Your task to perform on an android device: refresh tabs in the chrome app Image 0: 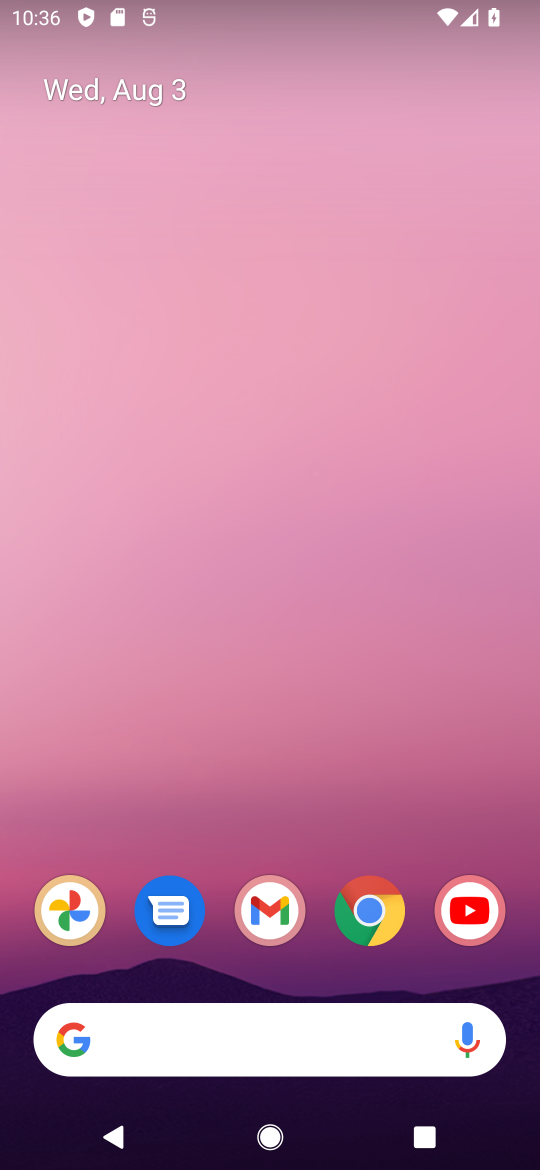
Step 0: press home button
Your task to perform on an android device: refresh tabs in the chrome app Image 1: 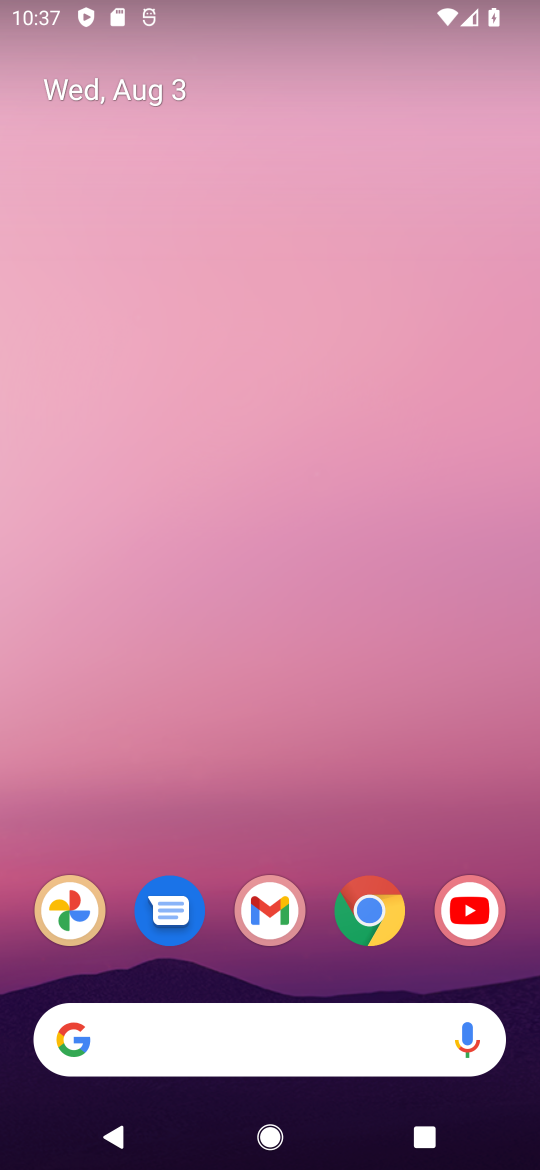
Step 1: click (366, 904)
Your task to perform on an android device: refresh tabs in the chrome app Image 2: 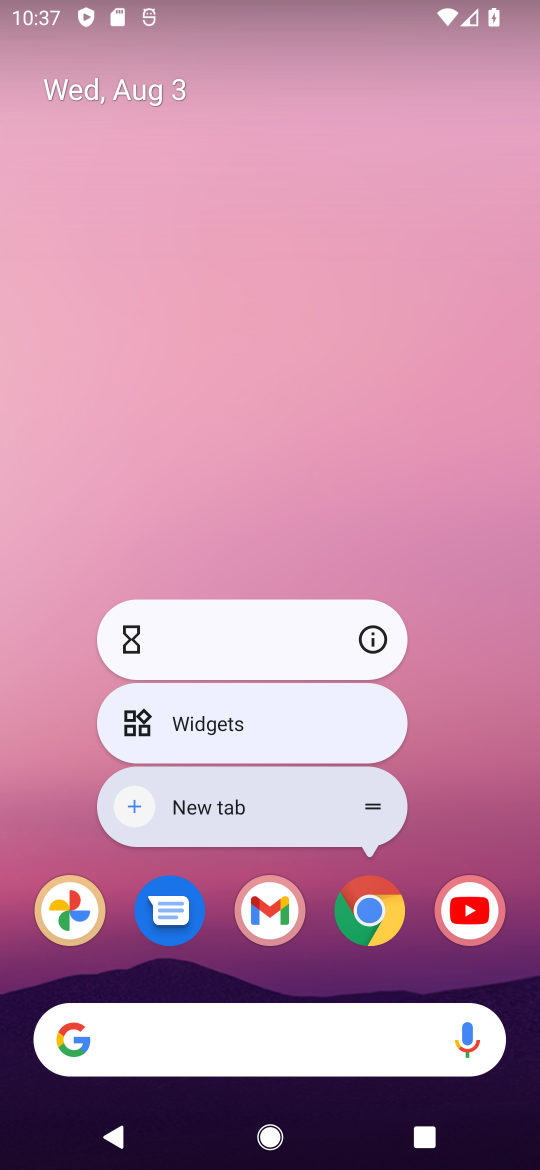
Step 2: click (361, 901)
Your task to perform on an android device: refresh tabs in the chrome app Image 3: 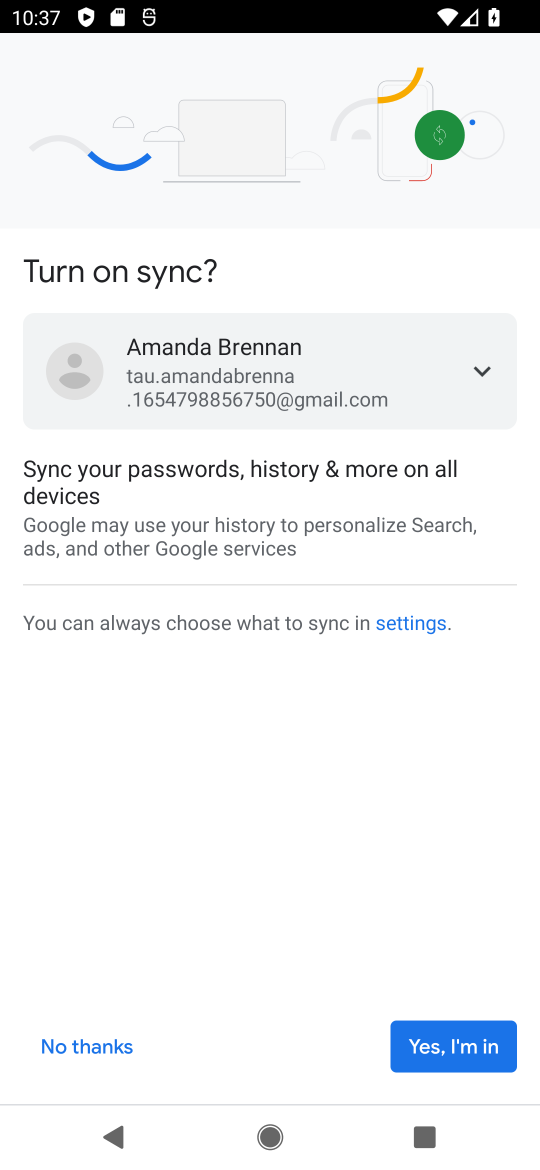
Step 3: click (451, 1043)
Your task to perform on an android device: refresh tabs in the chrome app Image 4: 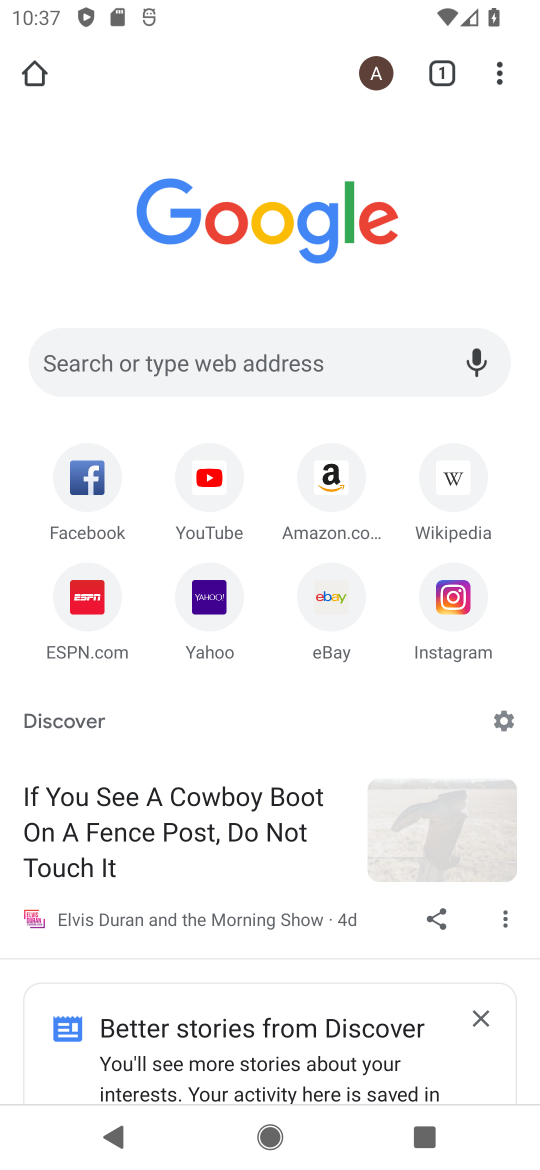
Step 4: click (501, 68)
Your task to perform on an android device: refresh tabs in the chrome app Image 5: 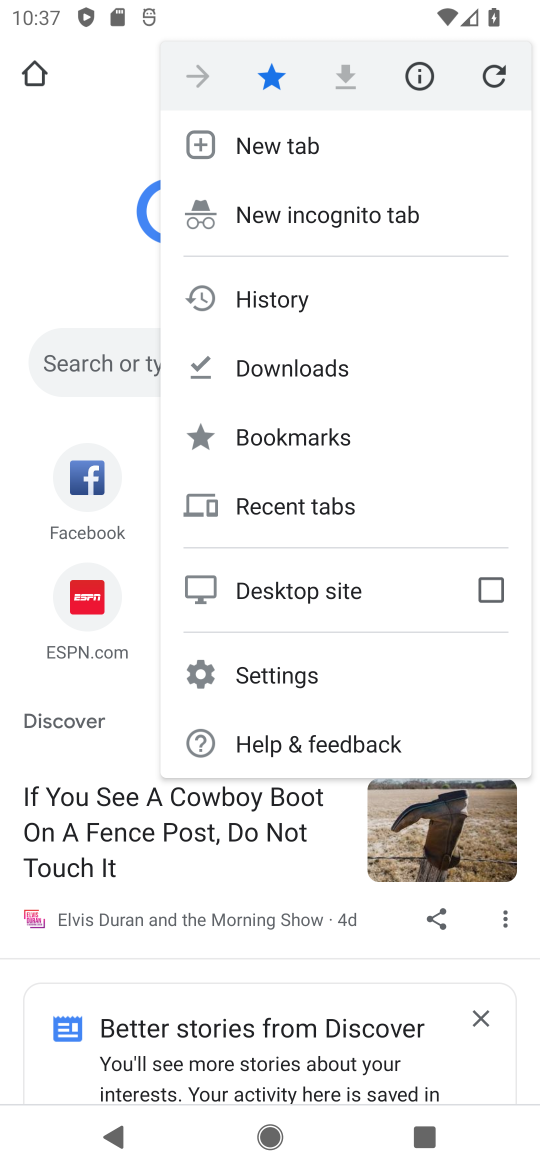
Step 5: click (501, 68)
Your task to perform on an android device: refresh tabs in the chrome app Image 6: 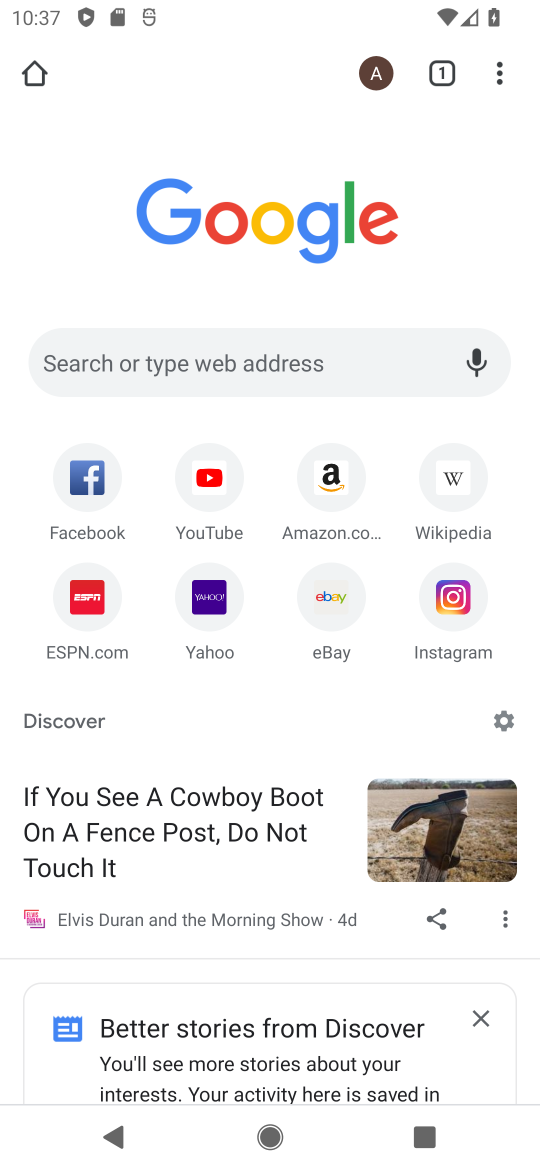
Step 6: task complete